Your task to perform on an android device: Check the news Image 0: 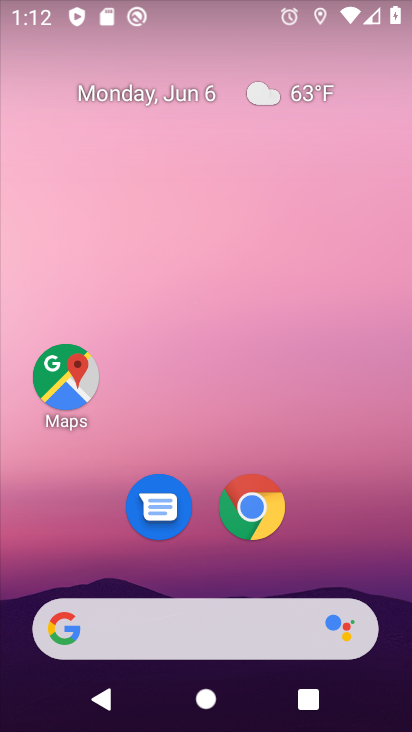
Step 0: click (322, 548)
Your task to perform on an android device: Check the news Image 1: 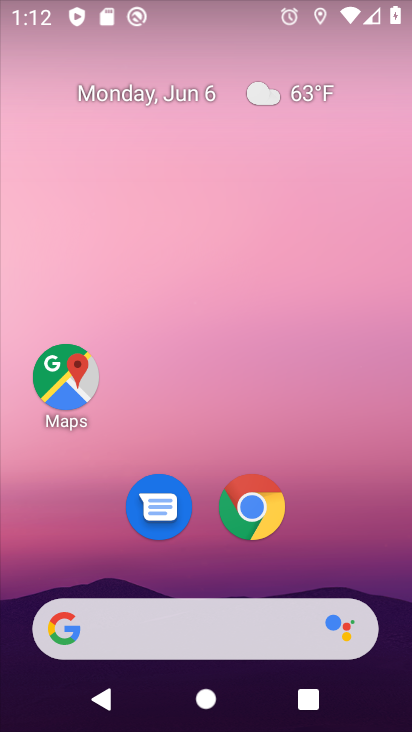
Step 1: click (198, 635)
Your task to perform on an android device: Check the news Image 2: 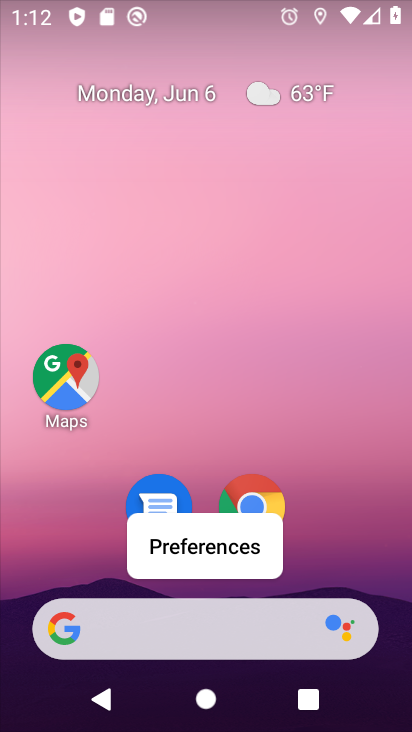
Step 2: click (150, 641)
Your task to perform on an android device: Check the news Image 3: 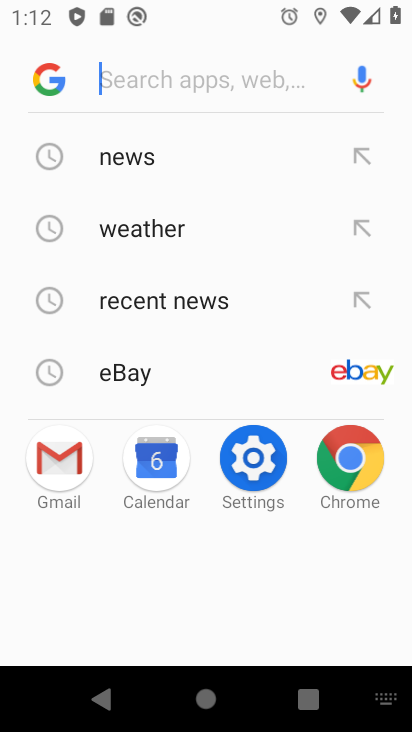
Step 3: click (150, 159)
Your task to perform on an android device: Check the news Image 4: 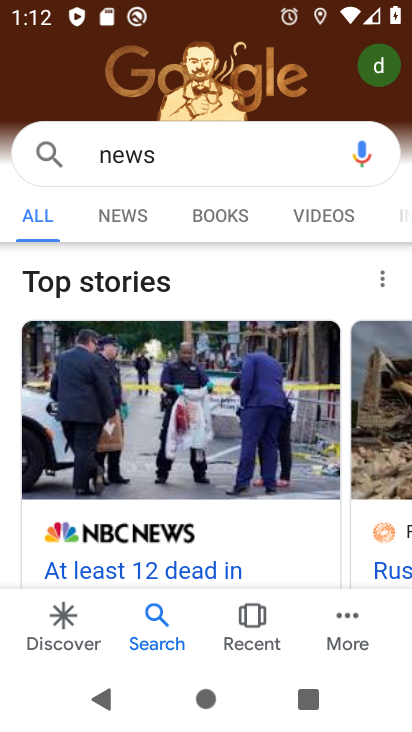
Step 4: click (127, 200)
Your task to perform on an android device: Check the news Image 5: 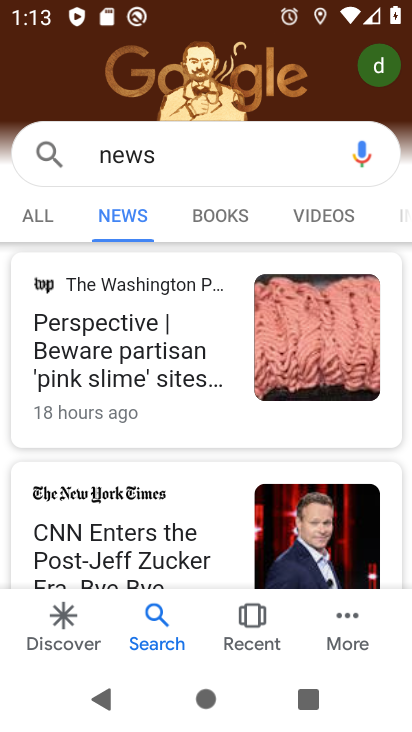
Step 5: task complete